Your task to perform on an android device: Open display settings Image 0: 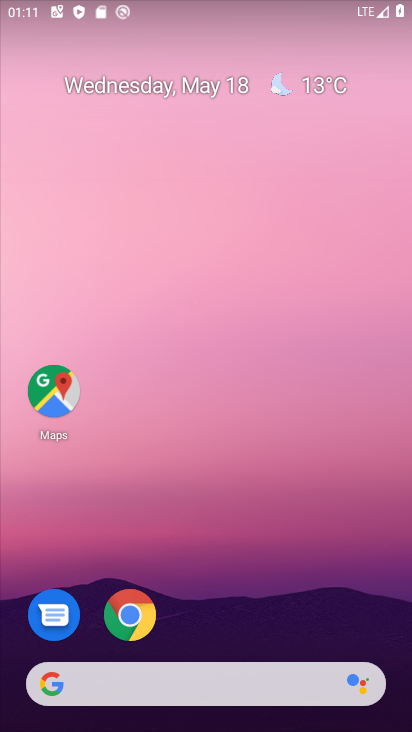
Step 0: press home button
Your task to perform on an android device: Open display settings Image 1: 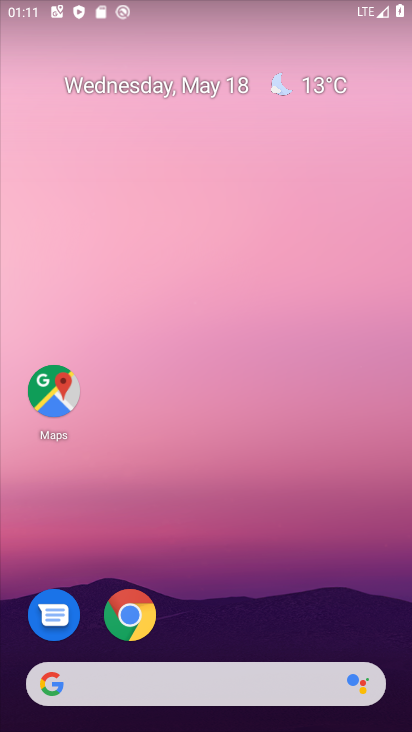
Step 1: drag from (110, 696) to (326, 32)
Your task to perform on an android device: Open display settings Image 2: 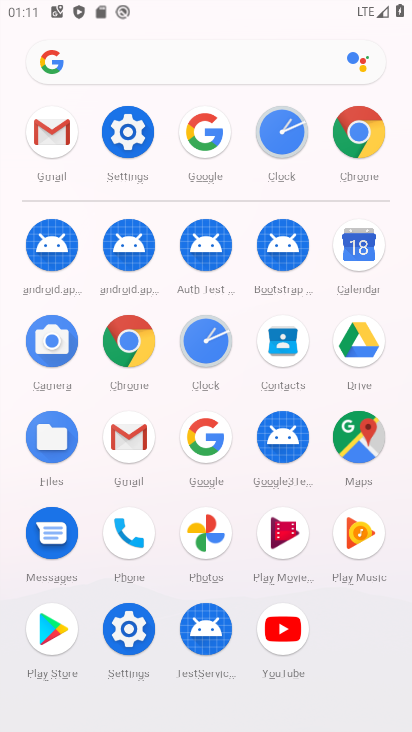
Step 2: click (124, 141)
Your task to perform on an android device: Open display settings Image 3: 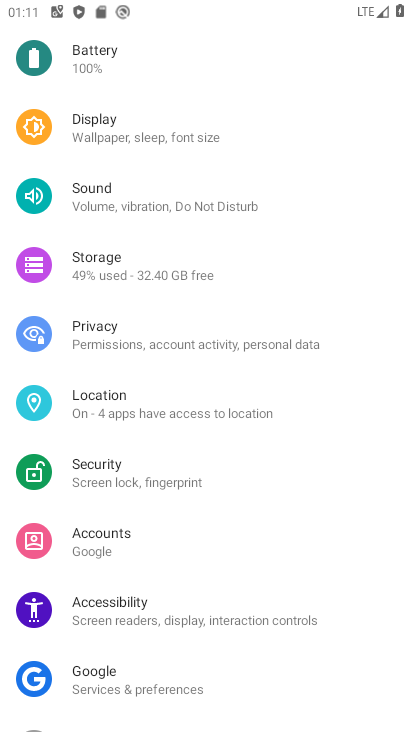
Step 3: click (113, 129)
Your task to perform on an android device: Open display settings Image 4: 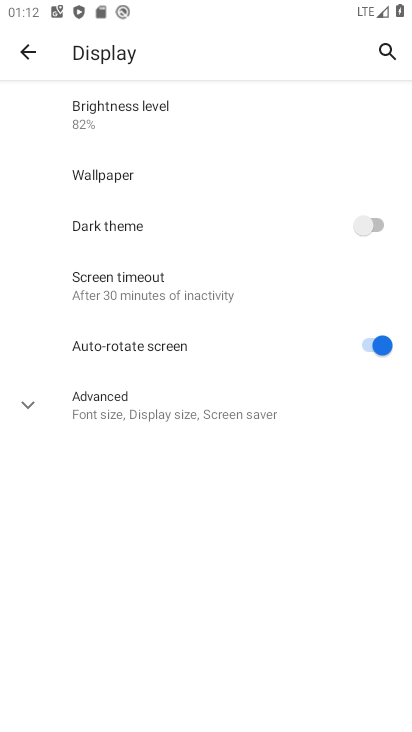
Step 4: task complete